Your task to perform on an android device: What's the weather? Image 0: 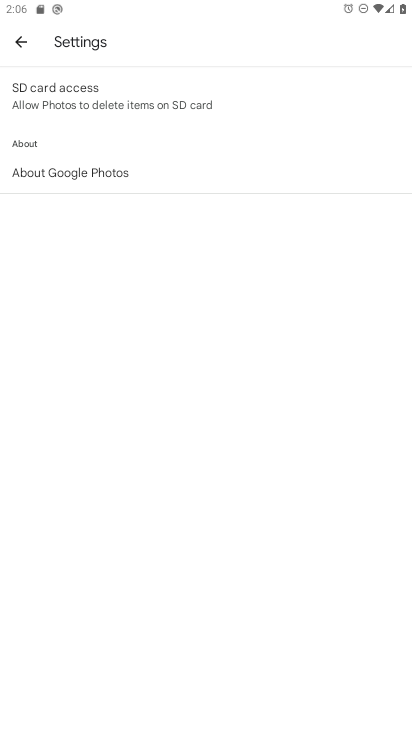
Step 0: press home button
Your task to perform on an android device: What's the weather? Image 1: 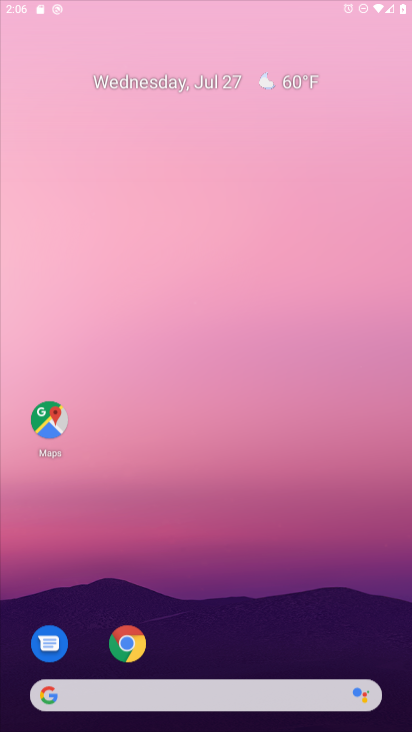
Step 1: drag from (178, 609) to (201, 119)
Your task to perform on an android device: What's the weather? Image 2: 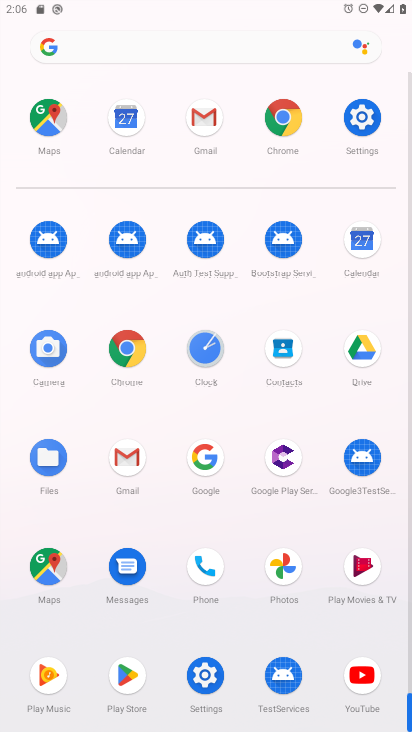
Step 2: click (146, 49)
Your task to perform on an android device: What's the weather? Image 3: 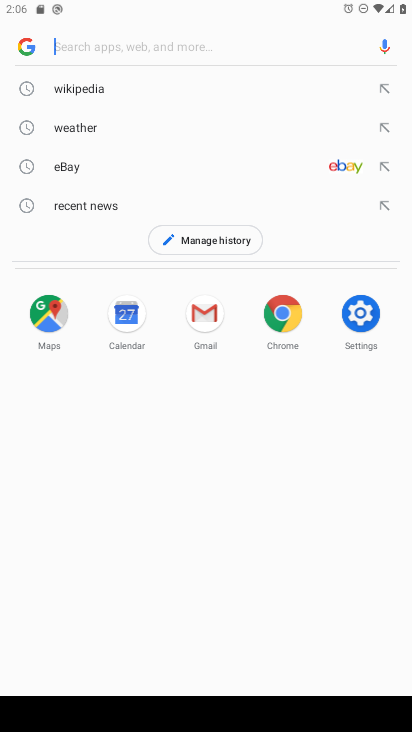
Step 3: click (89, 127)
Your task to perform on an android device: What's the weather? Image 4: 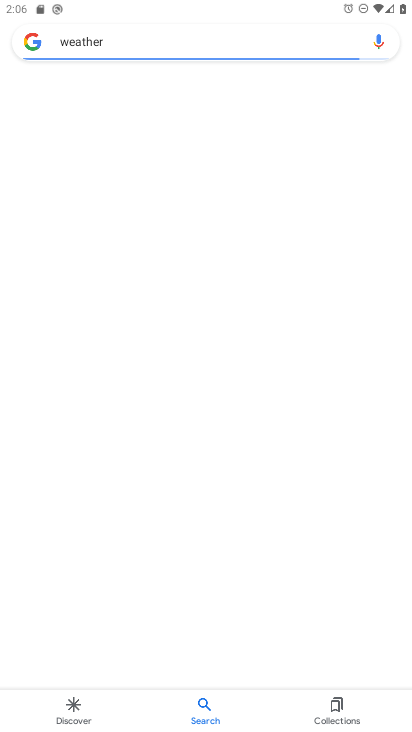
Step 4: task complete